Your task to perform on an android device: Open ESPN.com Image 0: 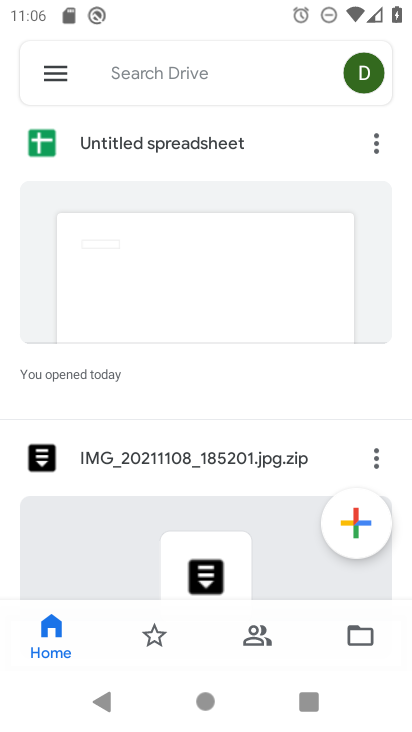
Step 0: press home button
Your task to perform on an android device: Open ESPN.com Image 1: 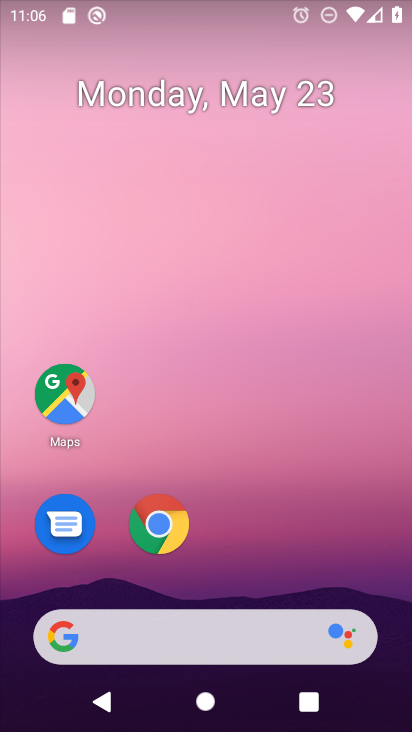
Step 1: click (168, 541)
Your task to perform on an android device: Open ESPN.com Image 2: 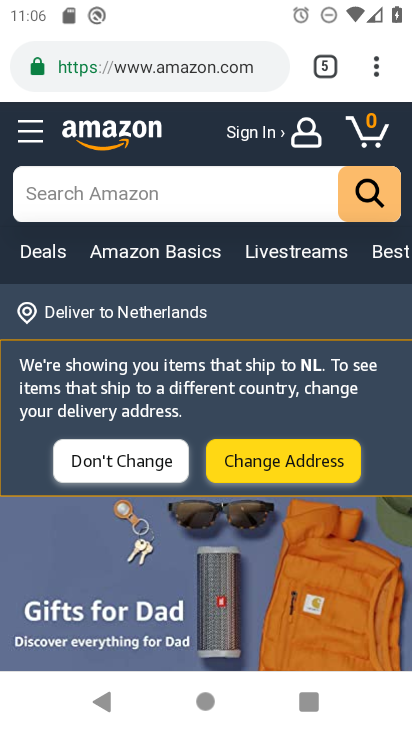
Step 2: click (318, 63)
Your task to perform on an android device: Open ESPN.com Image 3: 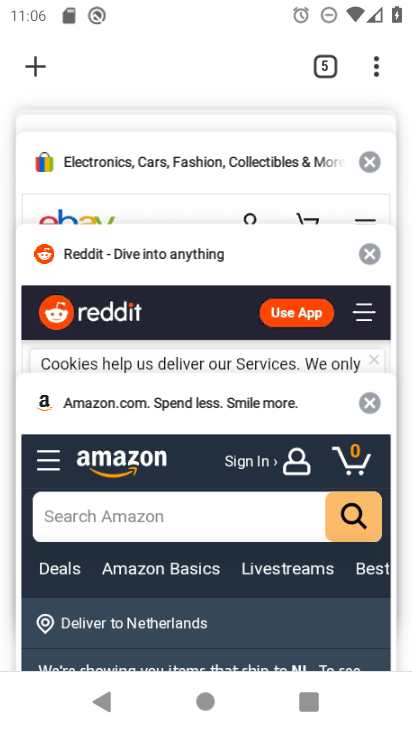
Step 3: click (39, 66)
Your task to perform on an android device: Open ESPN.com Image 4: 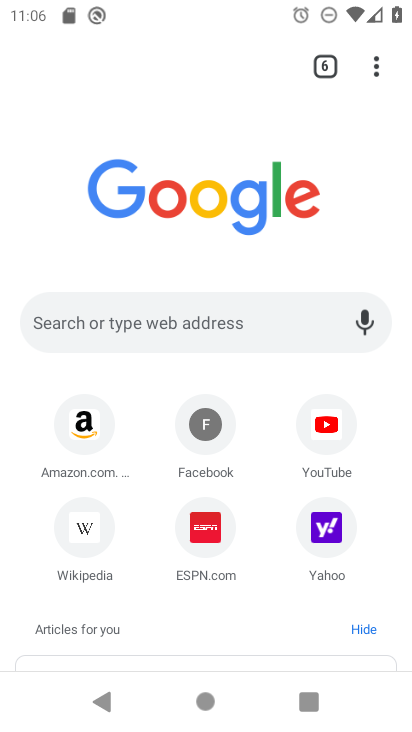
Step 4: click (159, 321)
Your task to perform on an android device: Open ESPN.com Image 5: 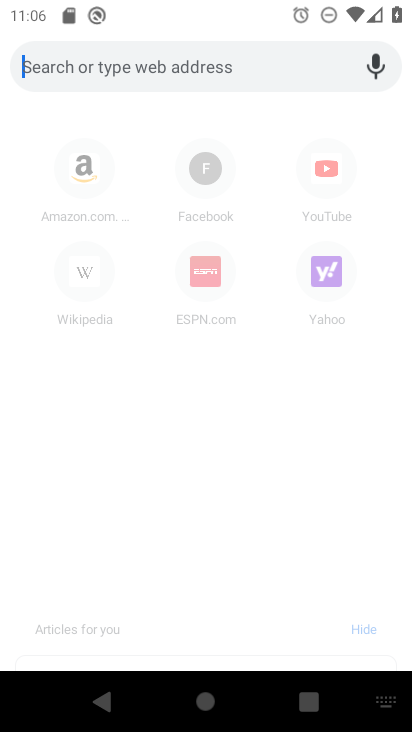
Step 5: type "ESPN.com"
Your task to perform on an android device: Open ESPN.com Image 6: 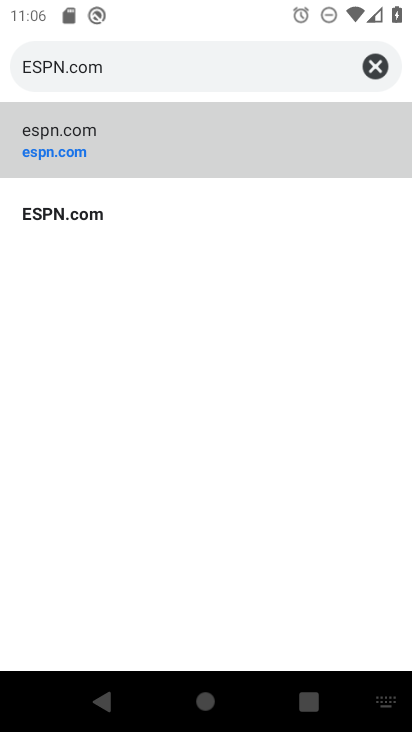
Step 6: click (199, 149)
Your task to perform on an android device: Open ESPN.com Image 7: 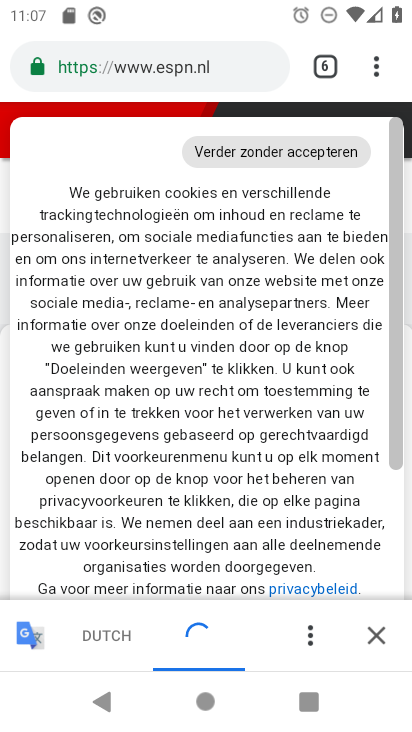
Step 7: task complete